Your task to perform on an android device: move an email to a new category in the gmail app Image 0: 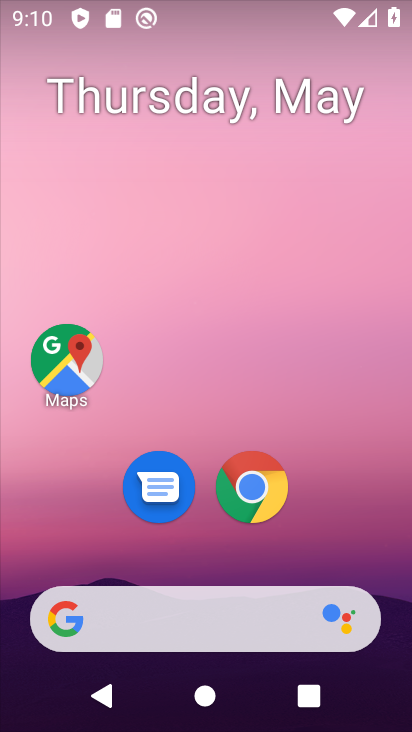
Step 0: drag from (179, 485) to (224, 154)
Your task to perform on an android device: move an email to a new category in the gmail app Image 1: 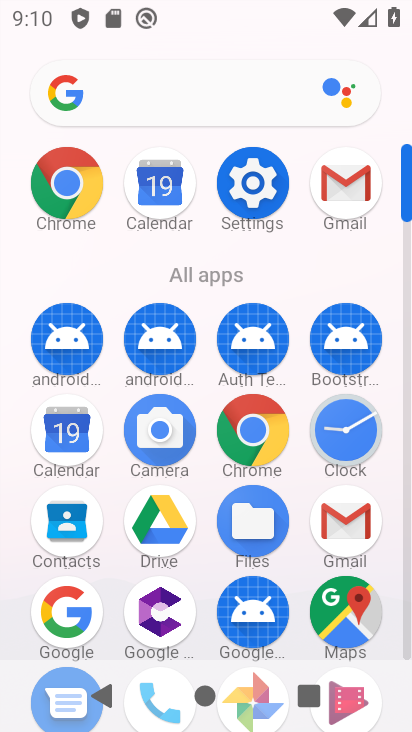
Step 1: click (354, 180)
Your task to perform on an android device: move an email to a new category in the gmail app Image 2: 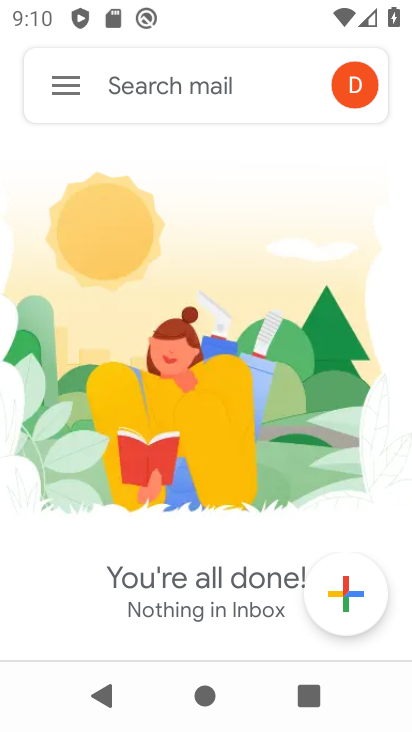
Step 2: click (57, 97)
Your task to perform on an android device: move an email to a new category in the gmail app Image 3: 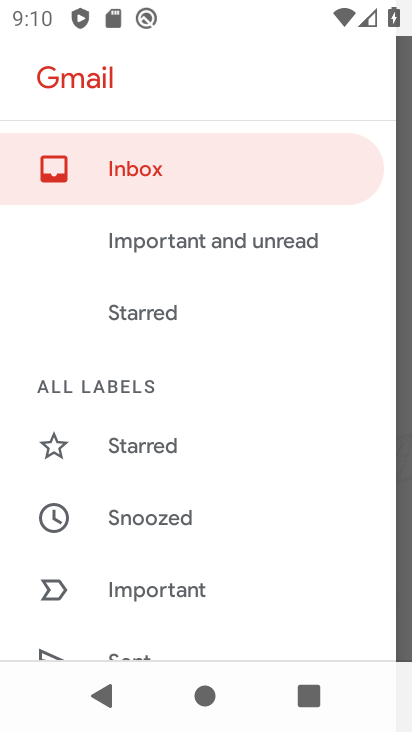
Step 3: drag from (159, 629) to (248, 262)
Your task to perform on an android device: move an email to a new category in the gmail app Image 4: 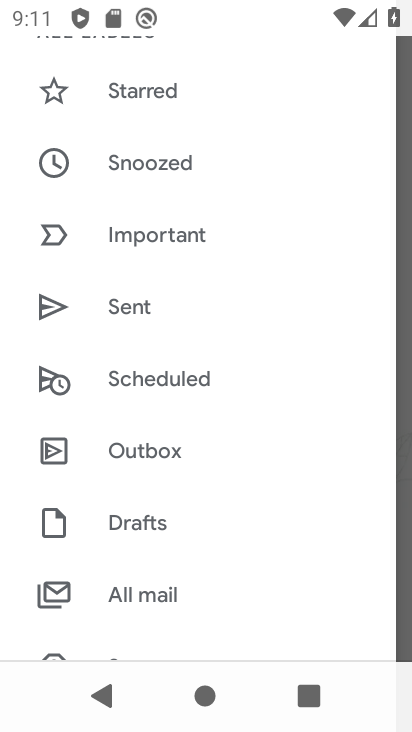
Step 4: click (181, 592)
Your task to perform on an android device: move an email to a new category in the gmail app Image 5: 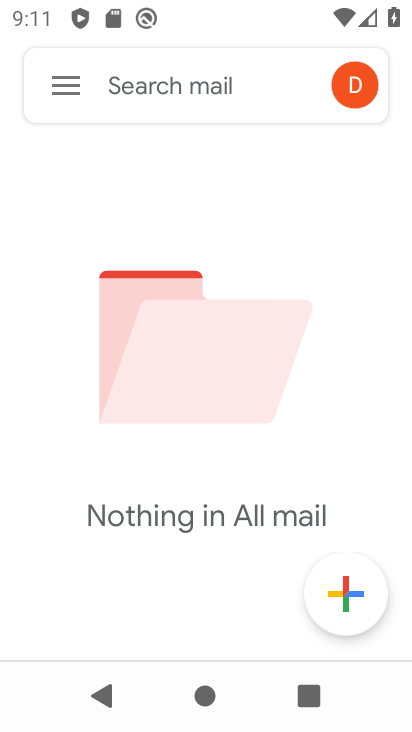
Step 5: task complete